Your task to perform on an android device: check google app version Image 0: 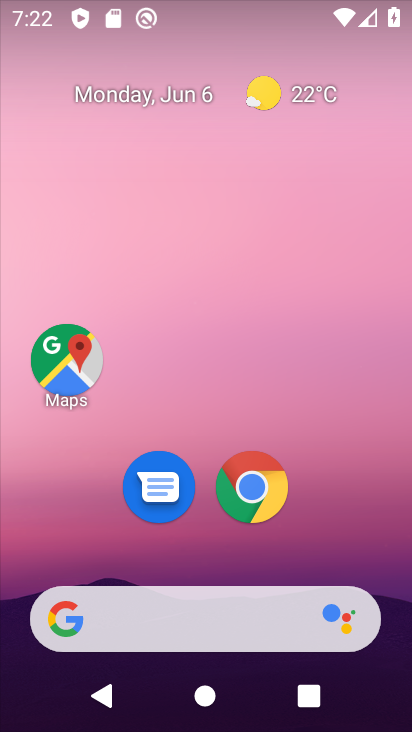
Step 0: drag from (395, 631) to (318, 48)
Your task to perform on an android device: check google app version Image 1: 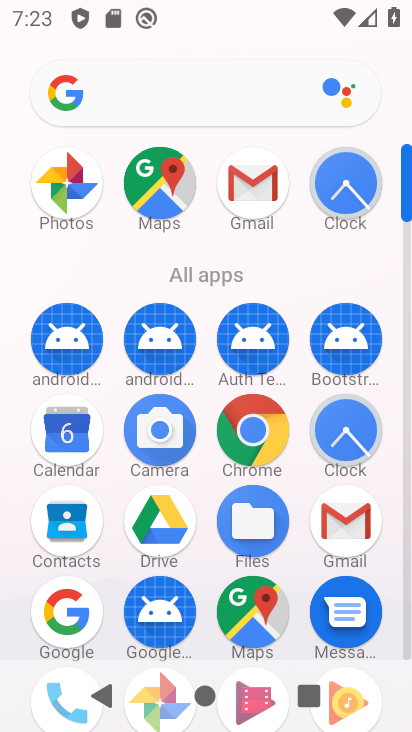
Step 1: click (95, 621)
Your task to perform on an android device: check google app version Image 2: 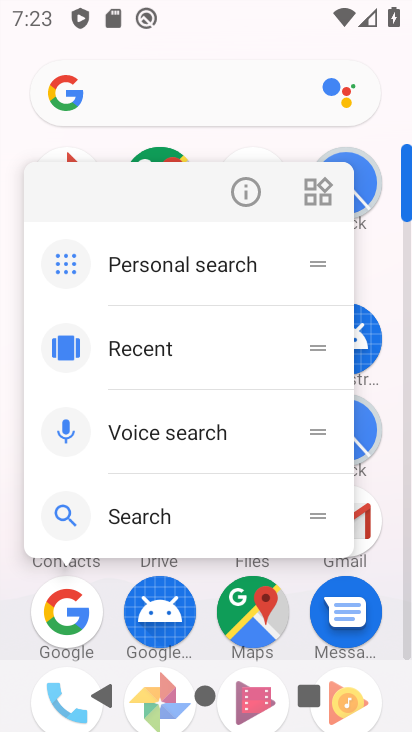
Step 2: click (250, 189)
Your task to perform on an android device: check google app version Image 3: 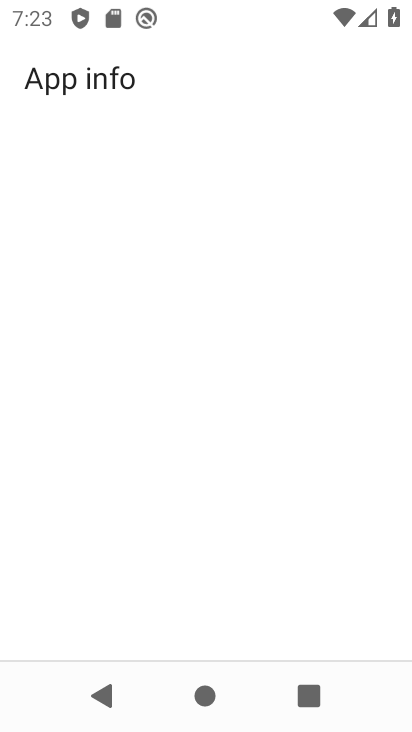
Step 3: drag from (194, 580) to (225, 178)
Your task to perform on an android device: check google app version Image 4: 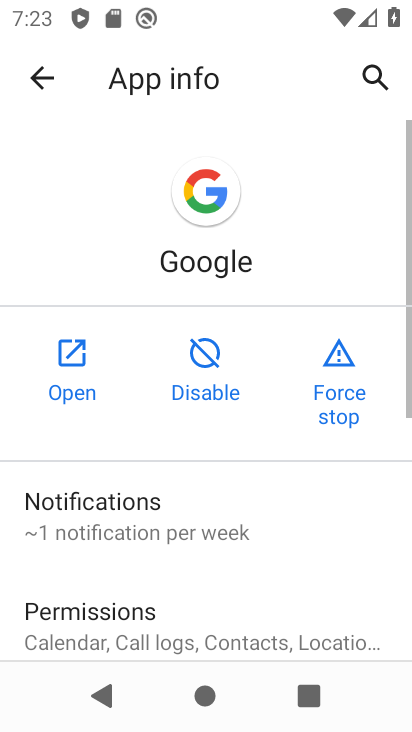
Step 4: drag from (188, 618) to (210, 48)
Your task to perform on an android device: check google app version Image 5: 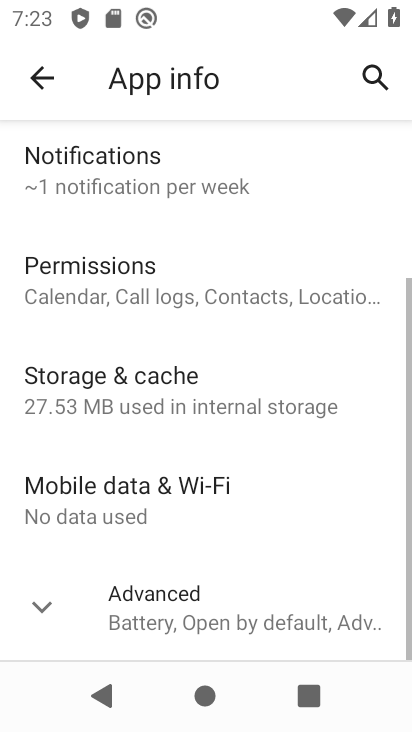
Step 5: click (42, 600)
Your task to perform on an android device: check google app version Image 6: 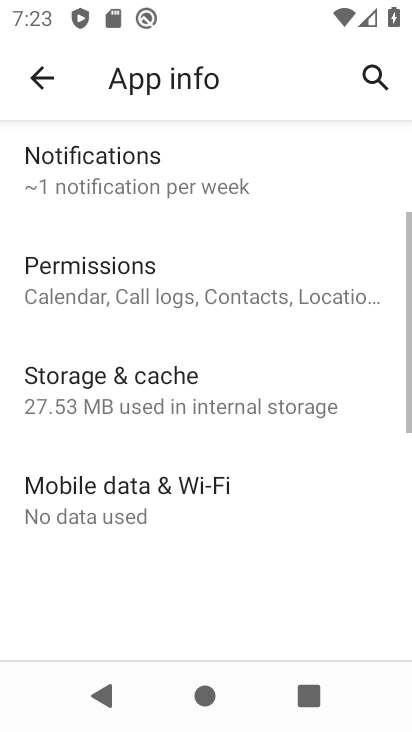
Step 6: task complete